Your task to perform on an android device: Search for flights from San Diego to Seattle Image 0: 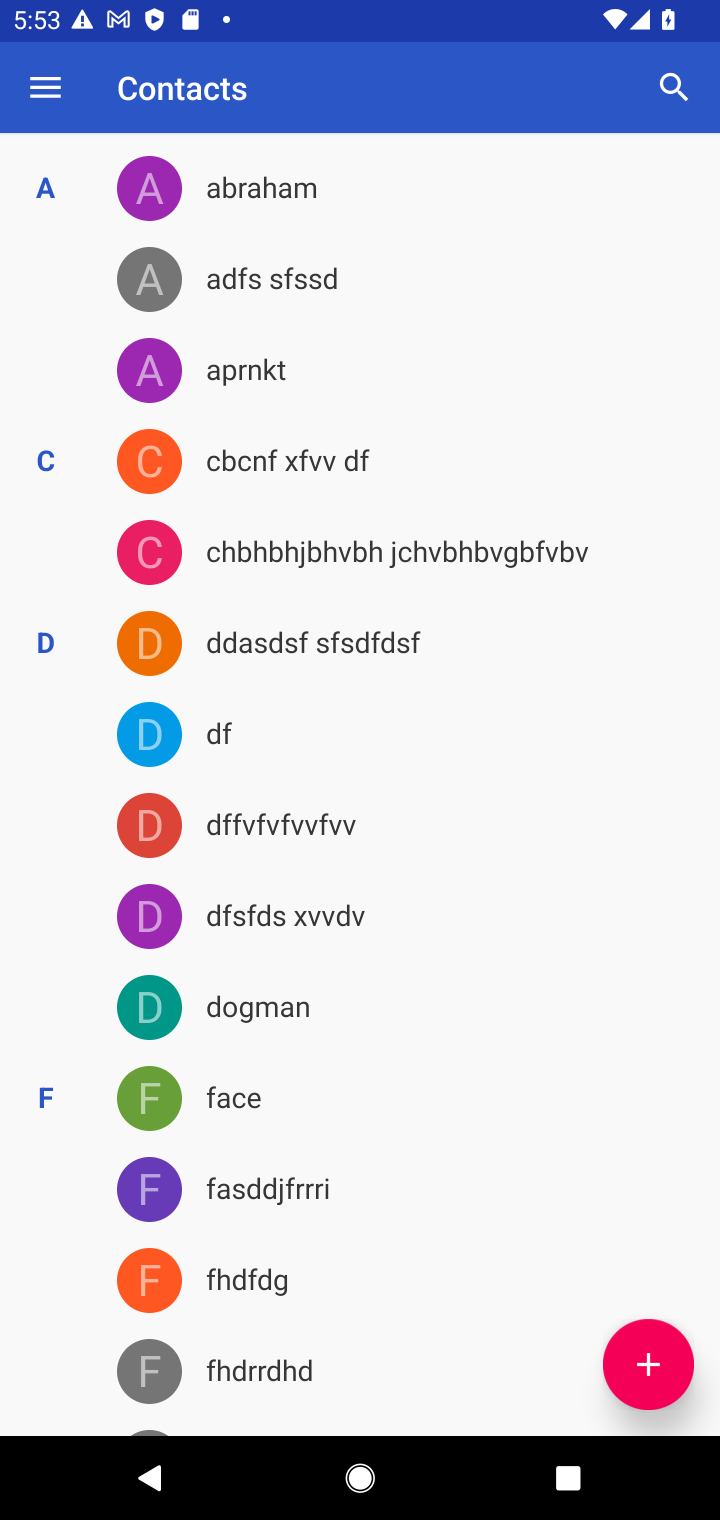
Step 0: press home button
Your task to perform on an android device: Search for flights from San Diego to Seattle Image 1: 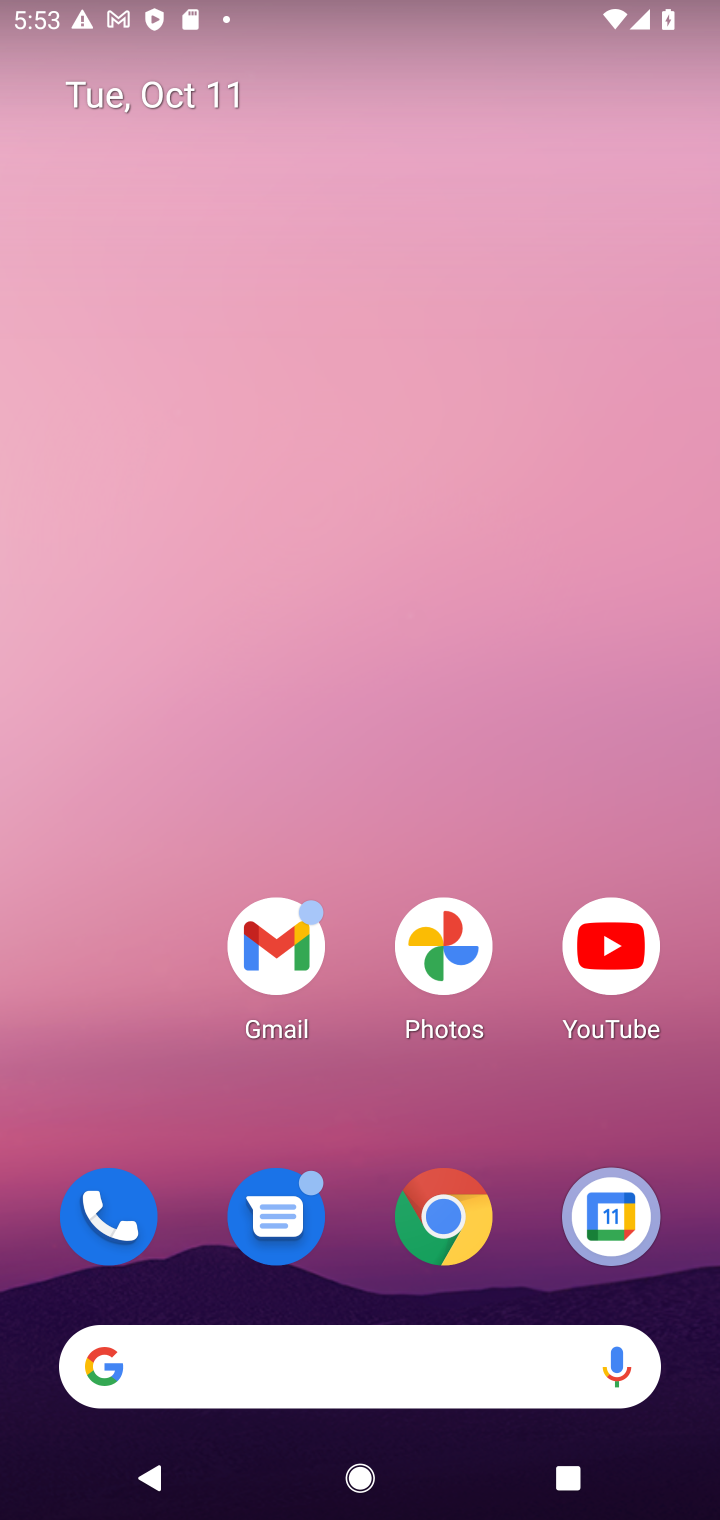
Step 1: click (446, 1209)
Your task to perform on an android device: Search for flights from San Diego to Seattle Image 2: 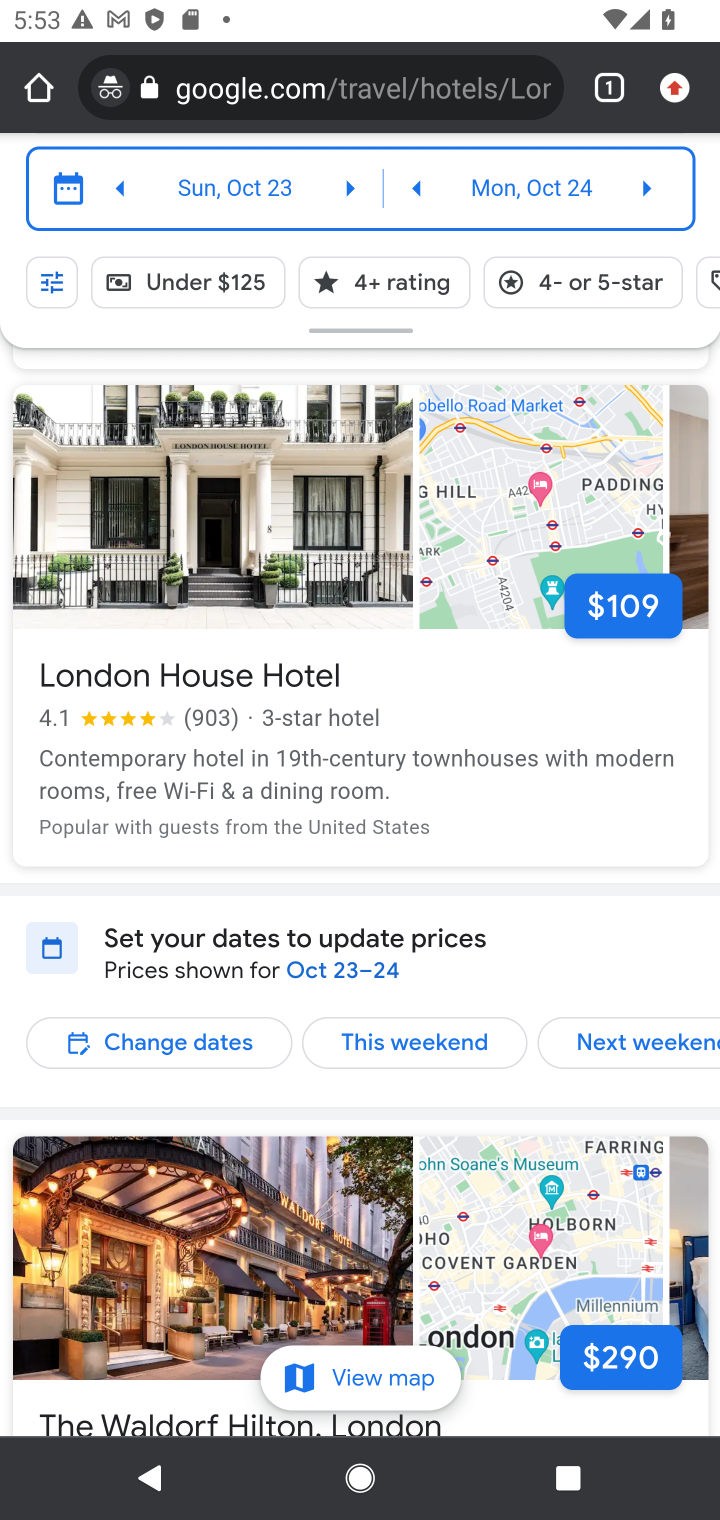
Step 2: click (315, 74)
Your task to perform on an android device: Search for flights from San Diego to Seattle Image 3: 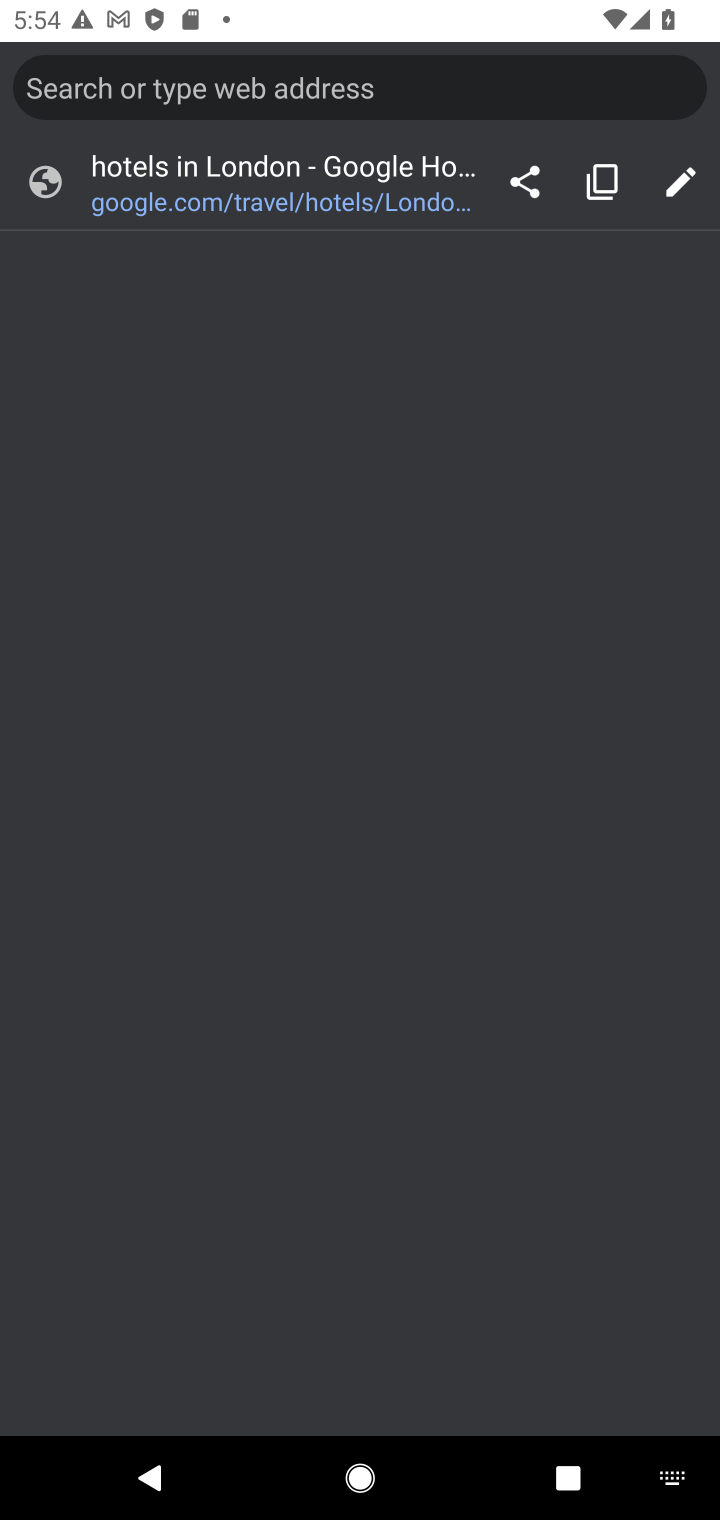
Step 3: type "flights from San Diego to Seattle"
Your task to perform on an android device: Search for flights from San Diego to Seattle Image 4: 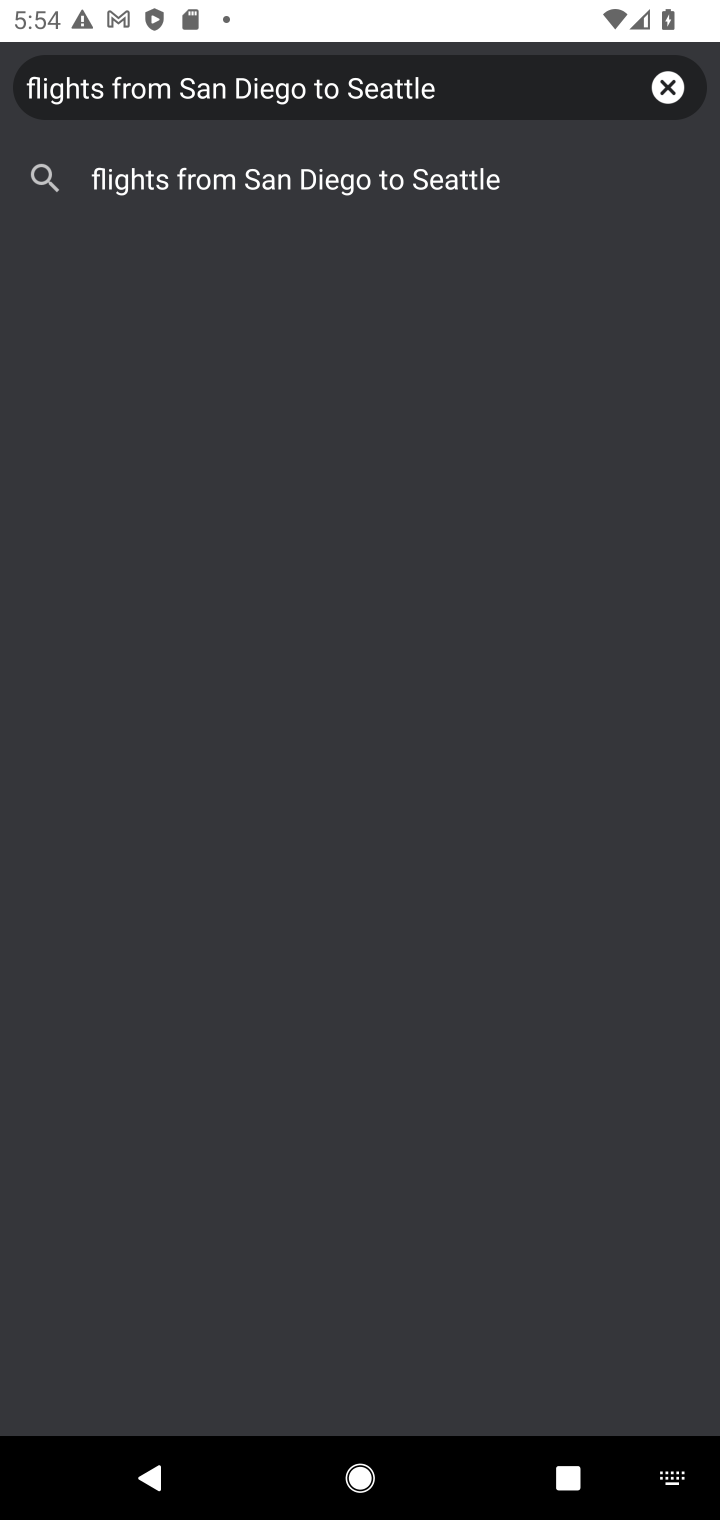
Step 4: click (229, 189)
Your task to perform on an android device: Search for flights from San Diego to Seattle Image 5: 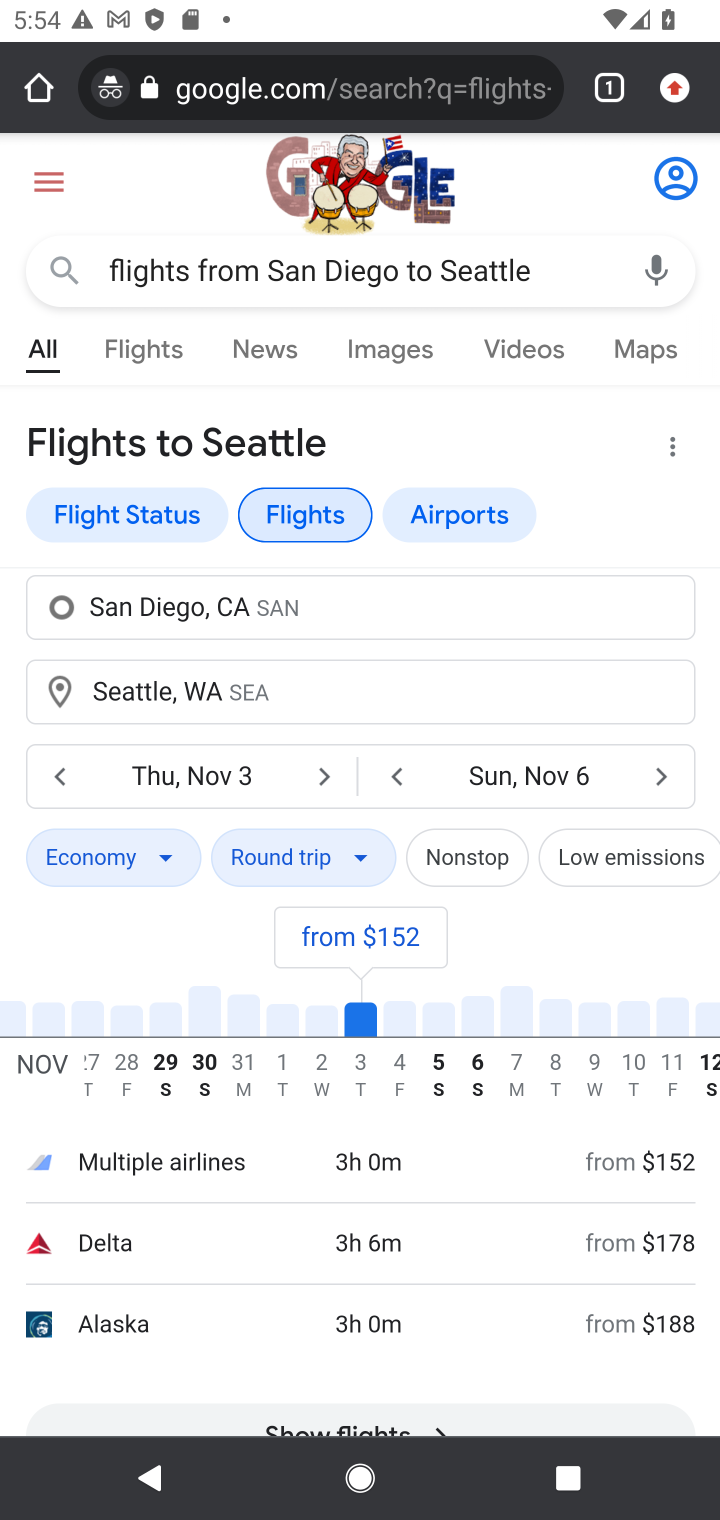
Step 5: drag from (298, 1272) to (467, 894)
Your task to perform on an android device: Search for flights from San Diego to Seattle Image 6: 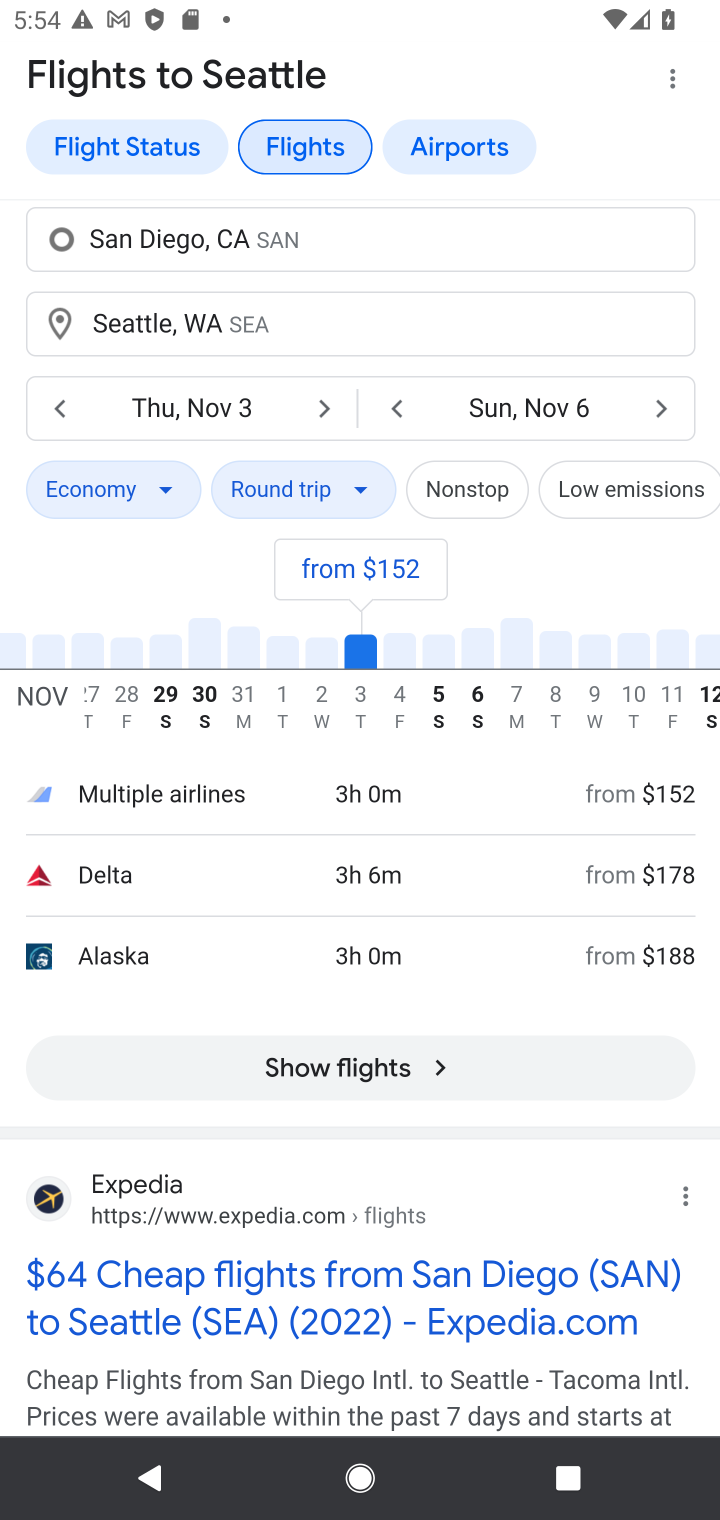
Step 6: click (416, 1079)
Your task to perform on an android device: Search for flights from San Diego to Seattle Image 7: 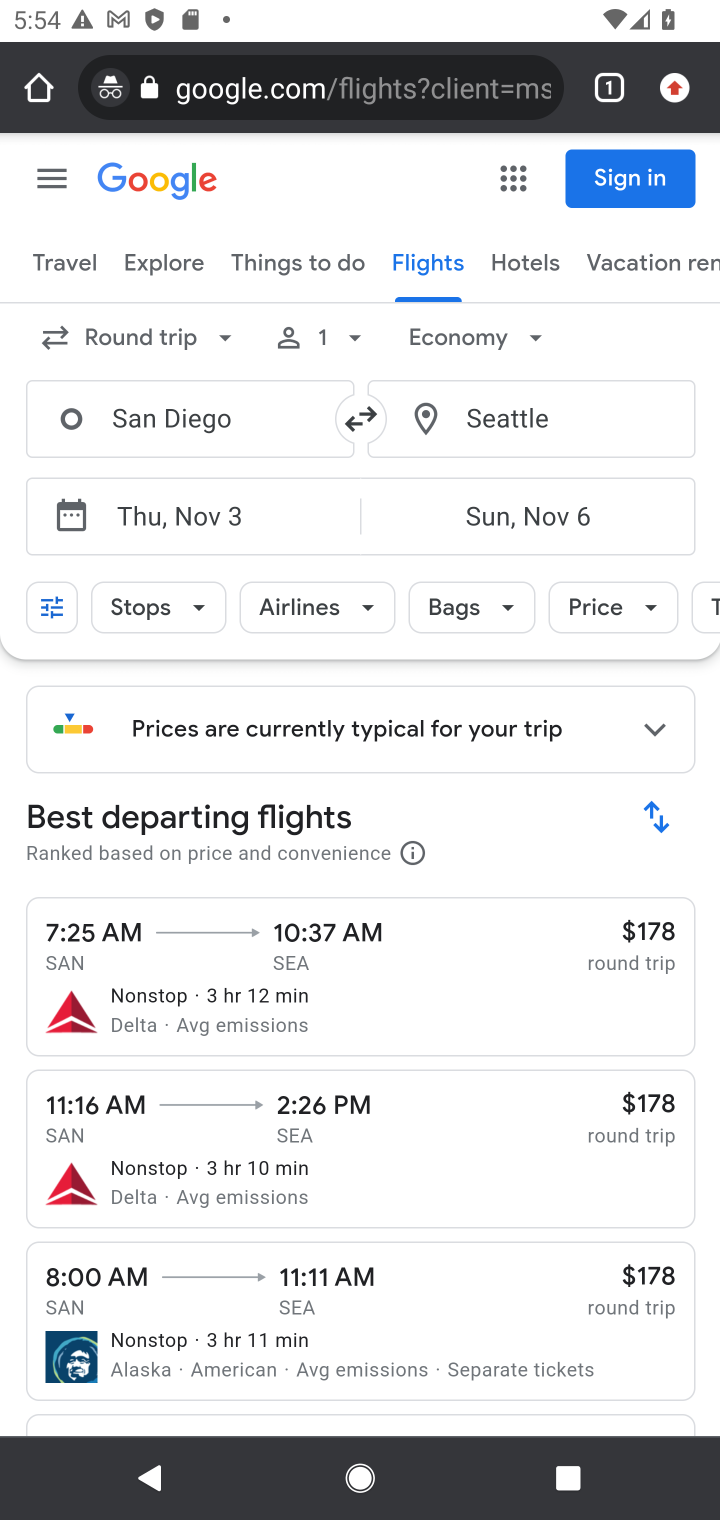
Step 7: task complete